Your task to perform on an android device: delete browsing data in the chrome app Image 0: 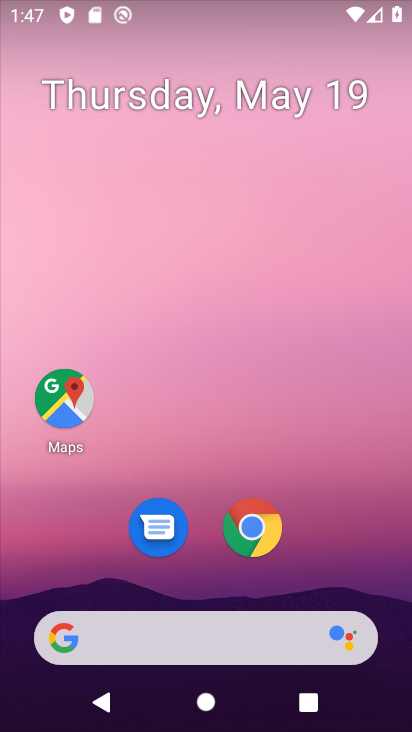
Step 0: click (256, 541)
Your task to perform on an android device: delete browsing data in the chrome app Image 1: 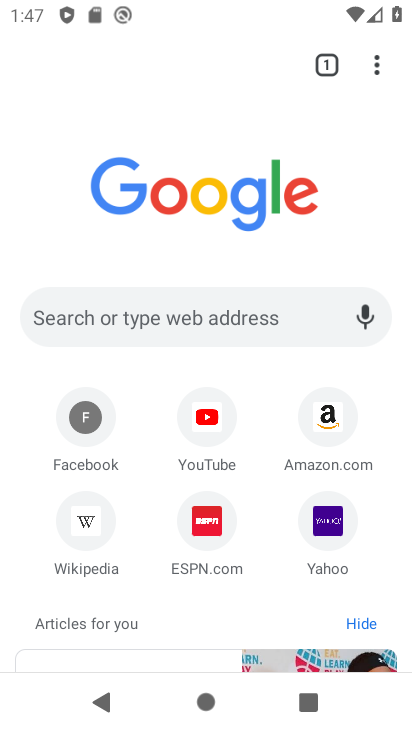
Step 1: click (376, 63)
Your task to perform on an android device: delete browsing data in the chrome app Image 2: 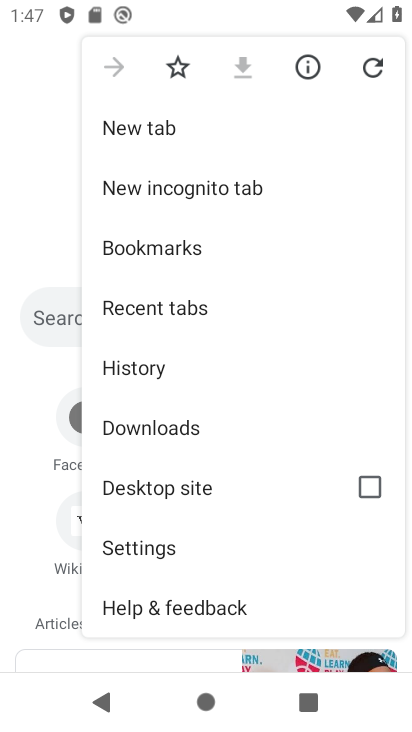
Step 2: click (160, 372)
Your task to perform on an android device: delete browsing data in the chrome app Image 3: 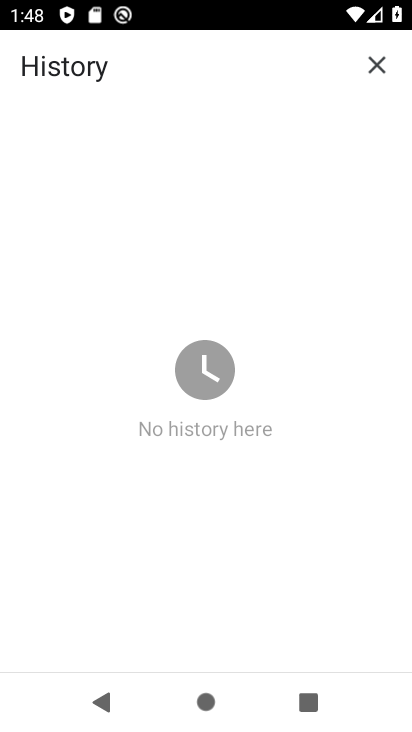
Step 3: task complete